Your task to perform on an android device: turn off smart reply in the gmail app Image 0: 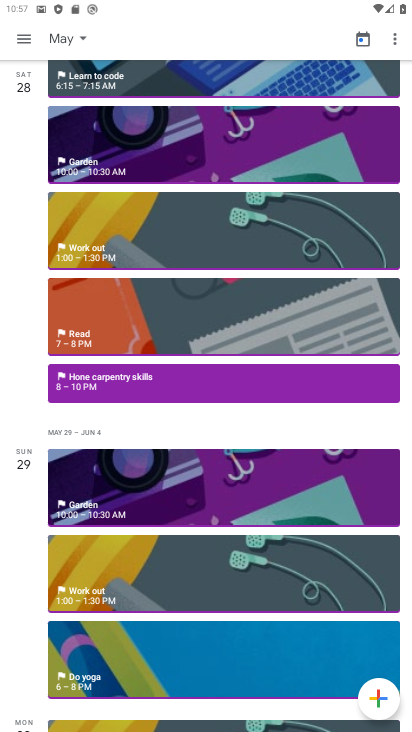
Step 0: press home button
Your task to perform on an android device: turn off smart reply in the gmail app Image 1: 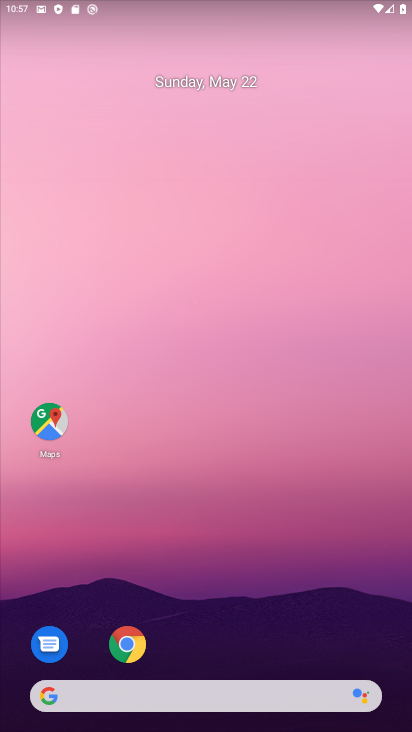
Step 1: drag from (223, 628) to (236, 185)
Your task to perform on an android device: turn off smart reply in the gmail app Image 2: 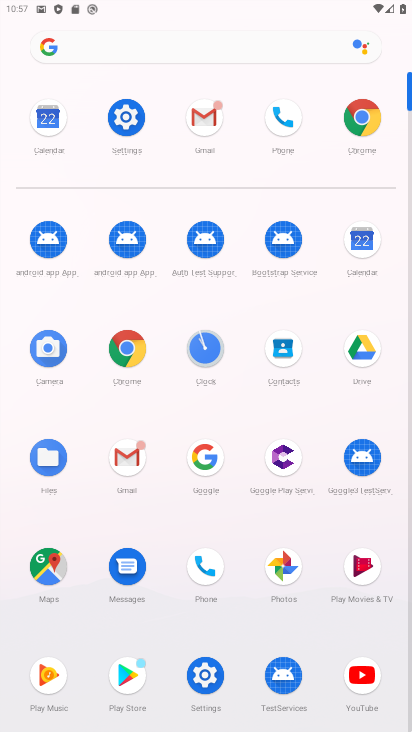
Step 2: click (204, 117)
Your task to perform on an android device: turn off smart reply in the gmail app Image 3: 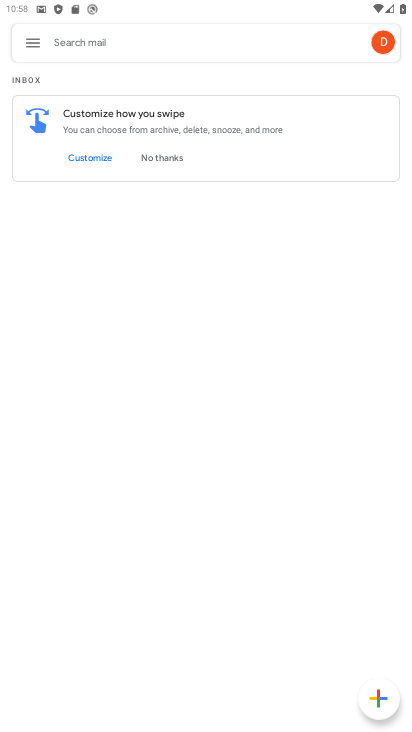
Step 3: click (32, 37)
Your task to perform on an android device: turn off smart reply in the gmail app Image 4: 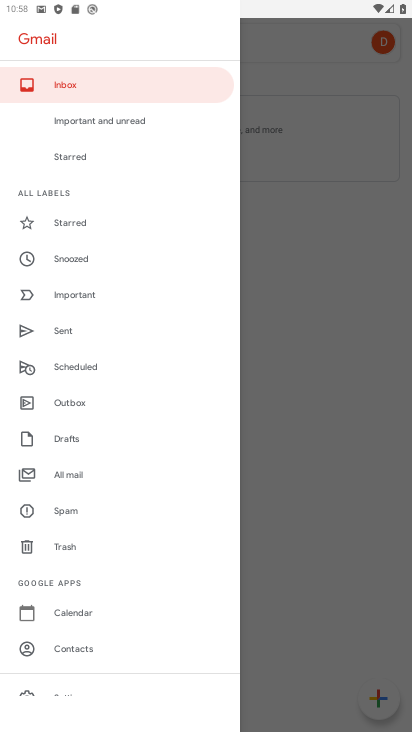
Step 4: drag from (88, 658) to (96, 311)
Your task to perform on an android device: turn off smart reply in the gmail app Image 5: 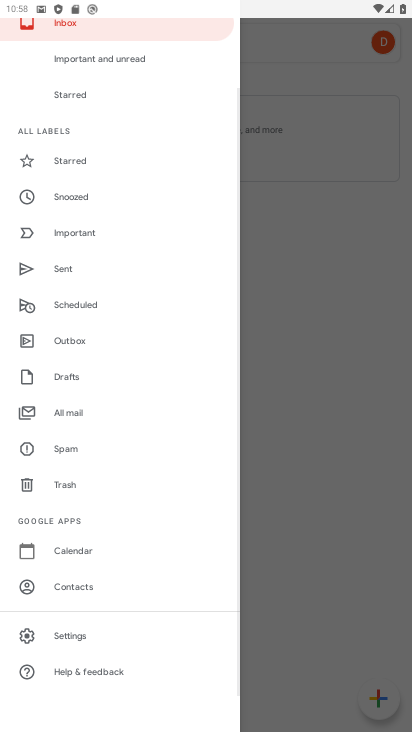
Step 5: click (75, 635)
Your task to perform on an android device: turn off smart reply in the gmail app Image 6: 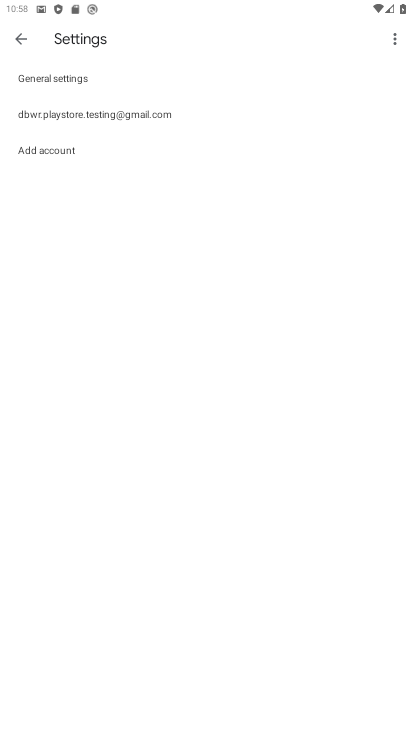
Step 6: click (97, 116)
Your task to perform on an android device: turn off smart reply in the gmail app Image 7: 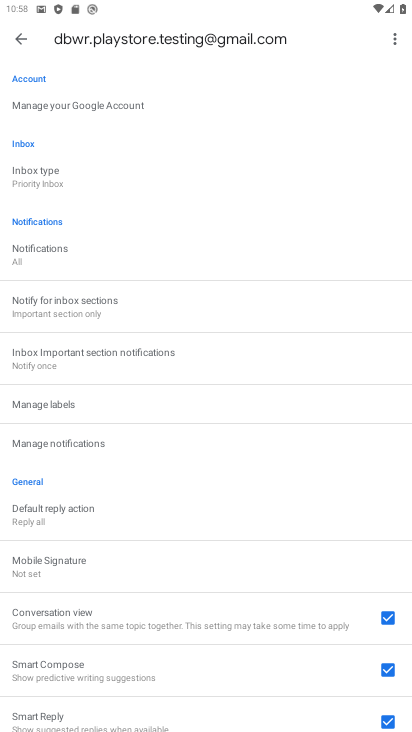
Step 7: drag from (131, 565) to (122, 297)
Your task to perform on an android device: turn off smart reply in the gmail app Image 8: 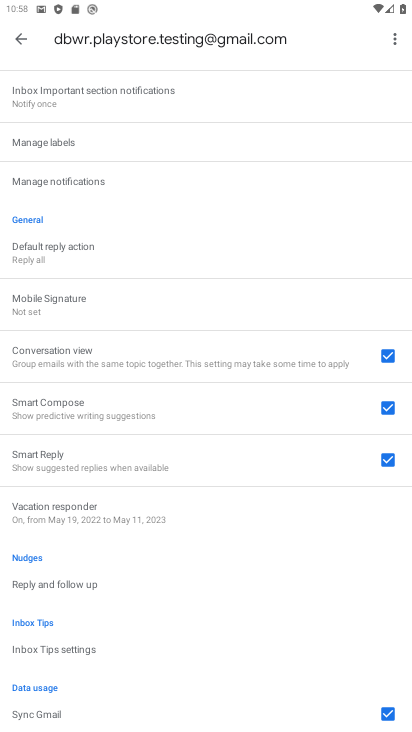
Step 8: click (382, 453)
Your task to perform on an android device: turn off smart reply in the gmail app Image 9: 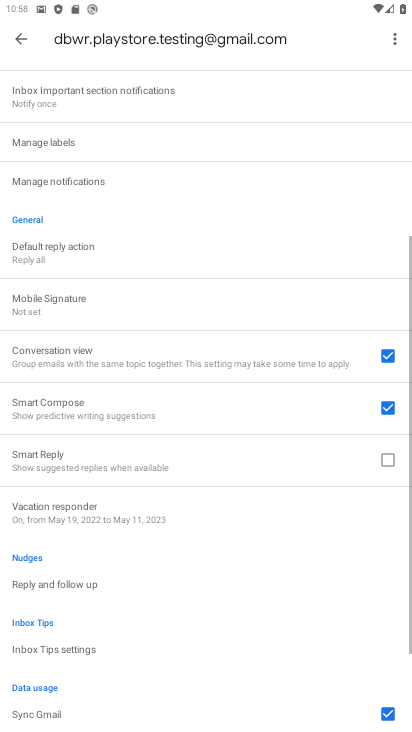
Step 9: task complete